Your task to perform on an android device: Open location settings Image 0: 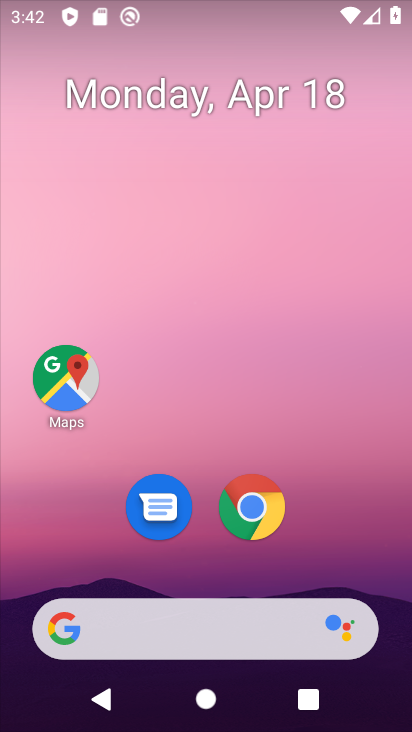
Step 0: drag from (264, 692) to (249, 128)
Your task to perform on an android device: Open location settings Image 1: 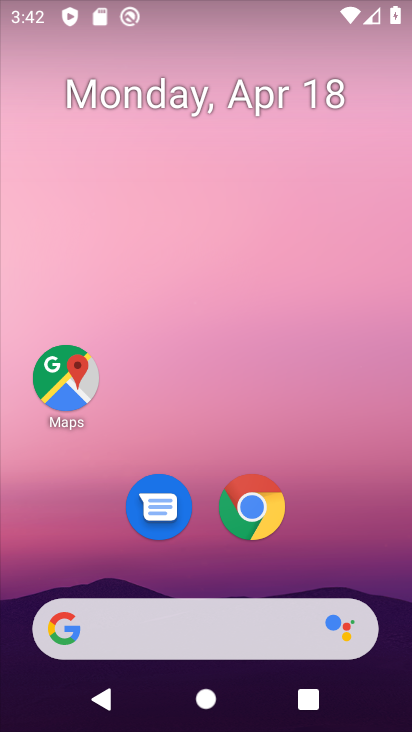
Step 1: drag from (245, 716) to (190, 46)
Your task to perform on an android device: Open location settings Image 2: 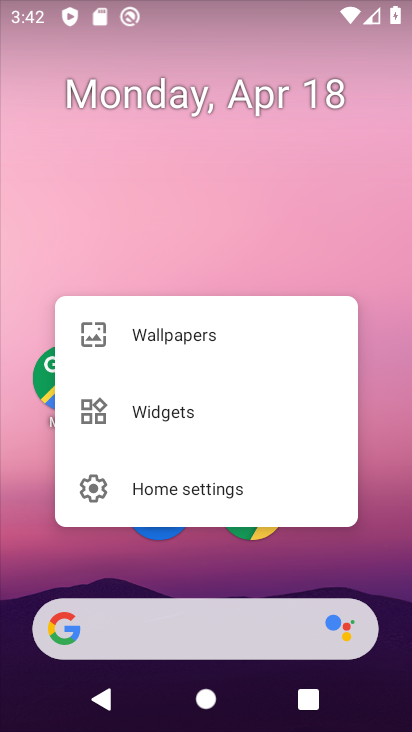
Step 2: click (224, 695)
Your task to perform on an android device: Open location settings Image 3: 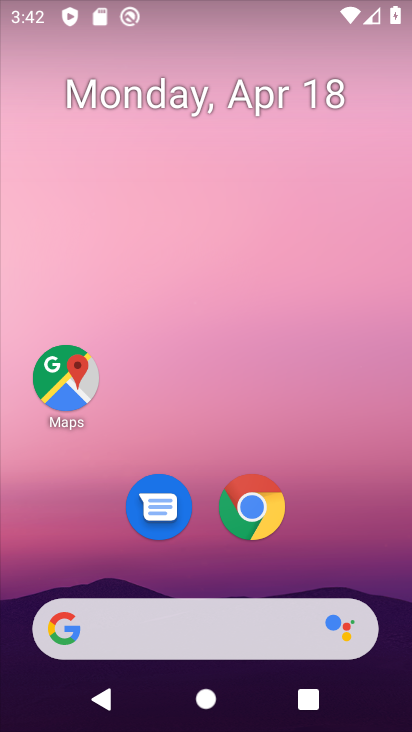
Step 3: drag from (270, 721) to (266, 5)
Your task to perform on an android device: Open location settings Image 4: 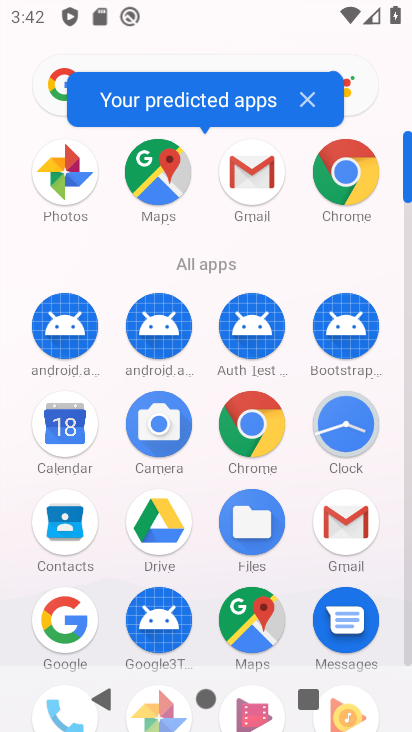
Step 4: click (172, 157)
Your task to perform on an android device: Open location settings Image 5: 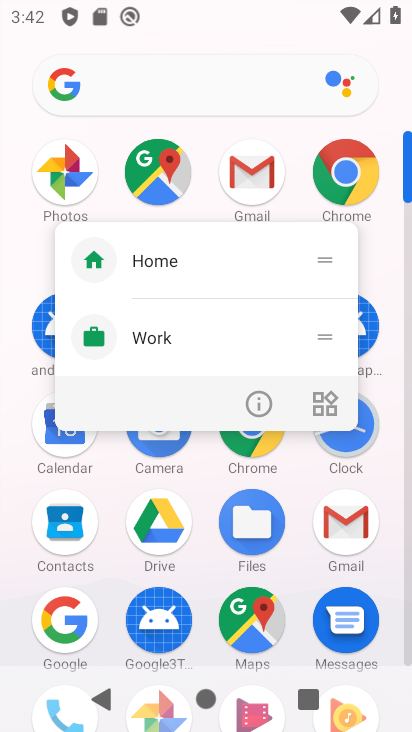
Step 5: click (158, 170)
Your task to perform on an android device: Open location settings Image 6: 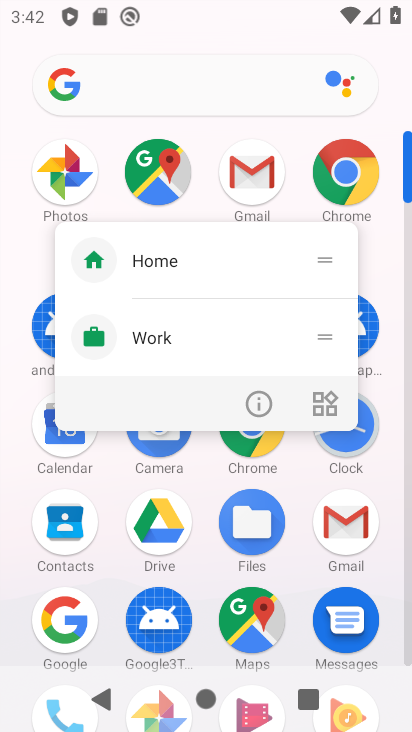
Step 6: click (154, 169)
Your task to perform on an android device: Open location settings Image 7: 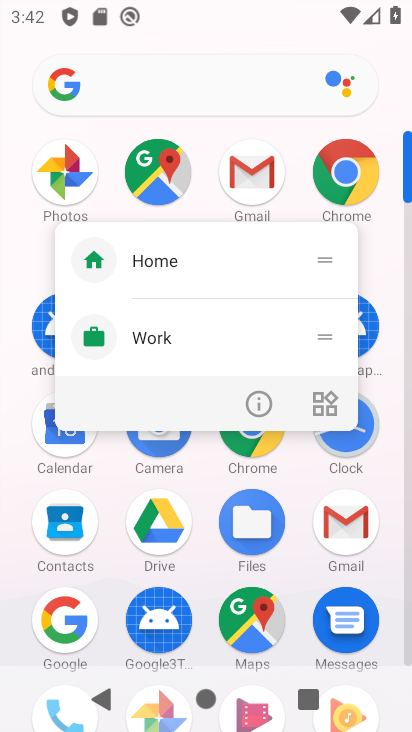
Step 7: click (154, 169)
Your task to perform on an android device: Open location settings Image 8: 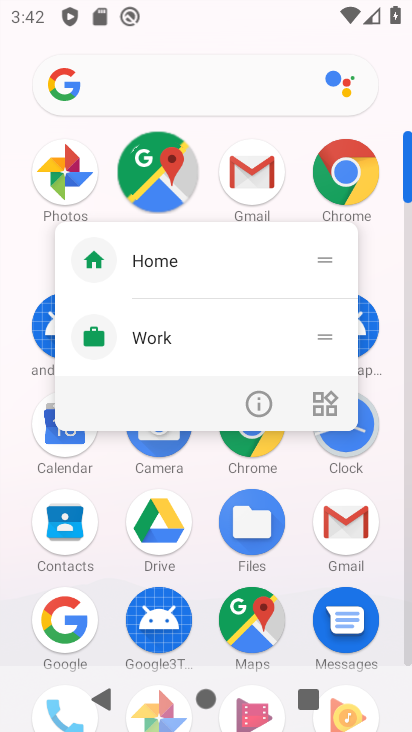
Step 8: click (154, 169)
Your task to perform on an android device: Open location settings Image 9: 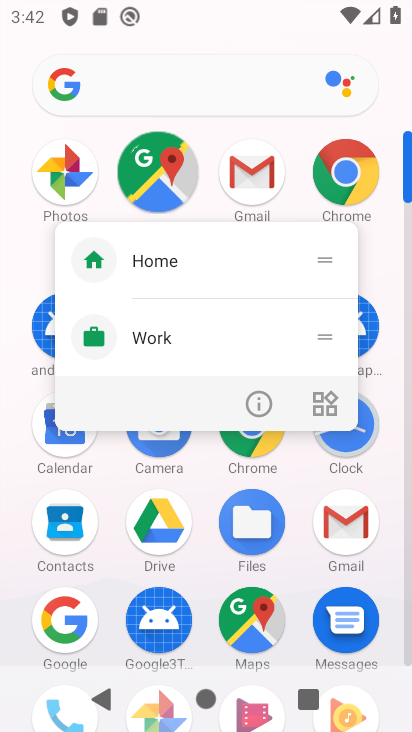
Step 9: click (154, 169)
Your task to perform on an android device: Open location settings Image 10: 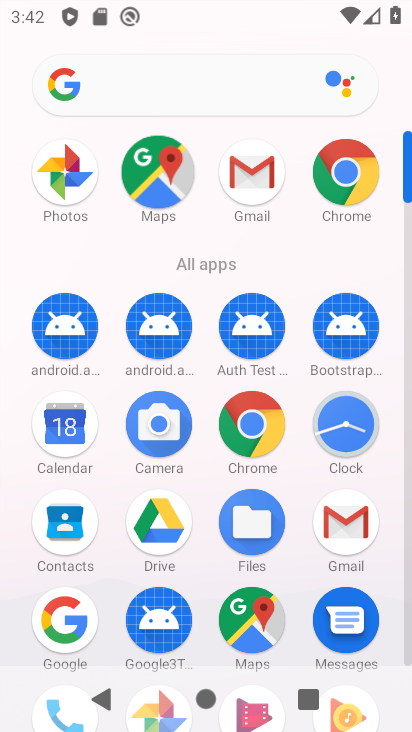
Step 10: click (154, 169)
Your task to perform on an android device: Open location settings Image 11: 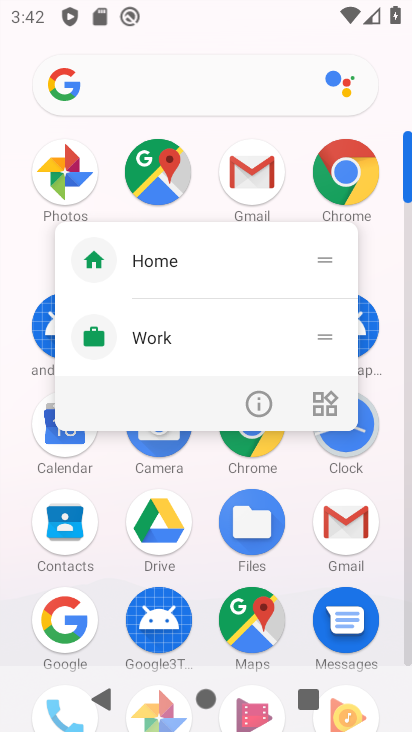
Step 11: click (164, 179)
Your task to perform on an android device: Open location settings Image 12: 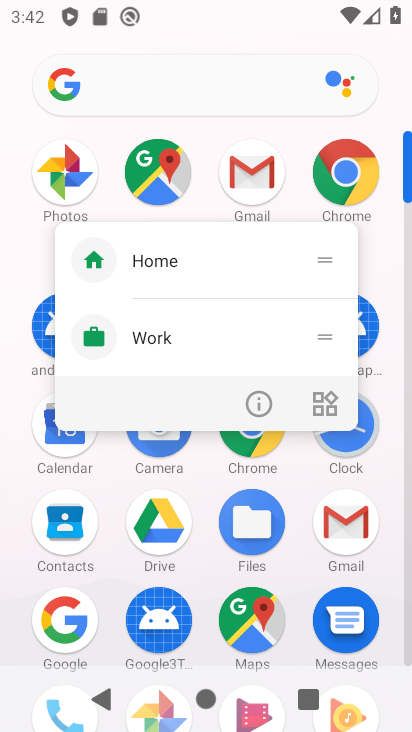
Step 12: drag from (250, 577) to (217, 138)
Your task to perform on an android device: Open location settings Image 13: 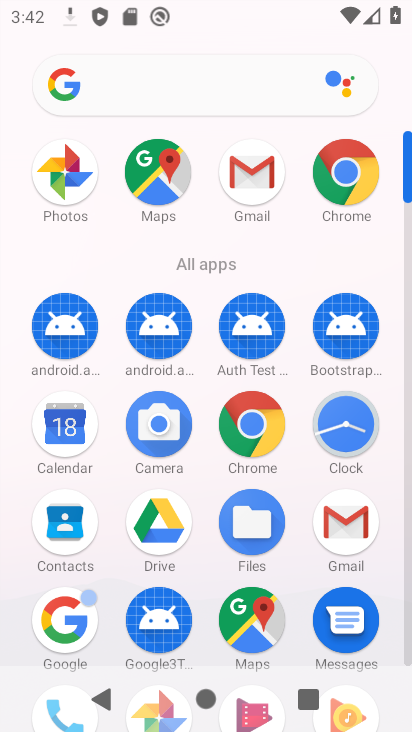
Step 13: drag from (315, 636) to (306, 2)
Your task to perform on an android device: Open location settings Image 14: 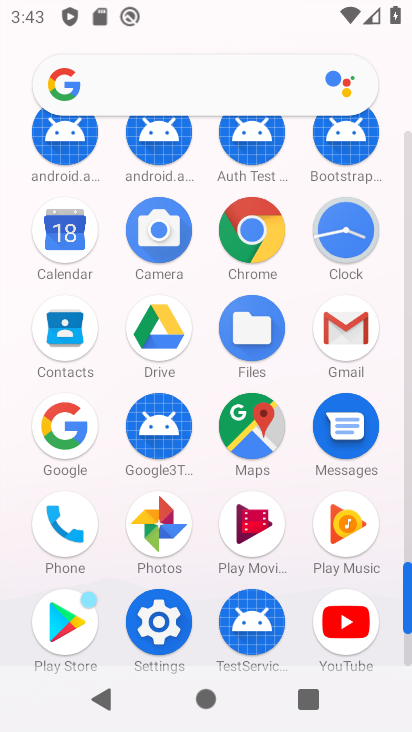
Step 14: click (141, 612)
Your task to perform on an android device: Open location settings Image 15: 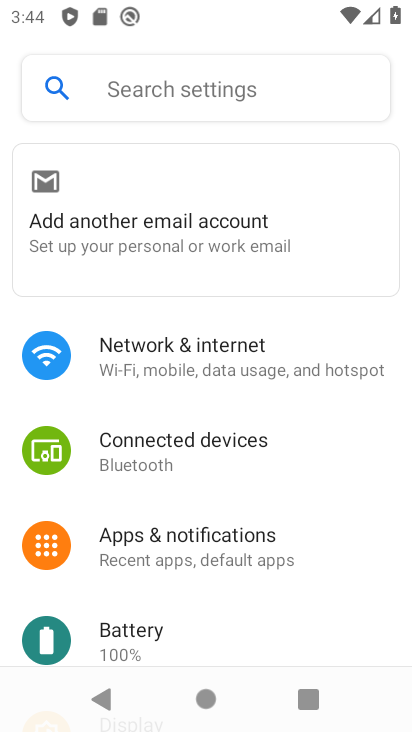
Step 15: drag from (261, 608) to (271, 22)
Your task to perform on an android device: Open location settings Image 16: 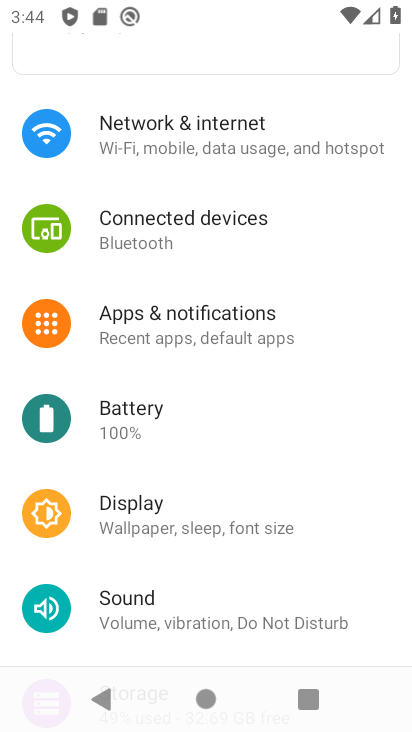
Step 16: drag from (248, 537) to (286, 93)
Your task to perform on an android device: Open location settings Image 17: 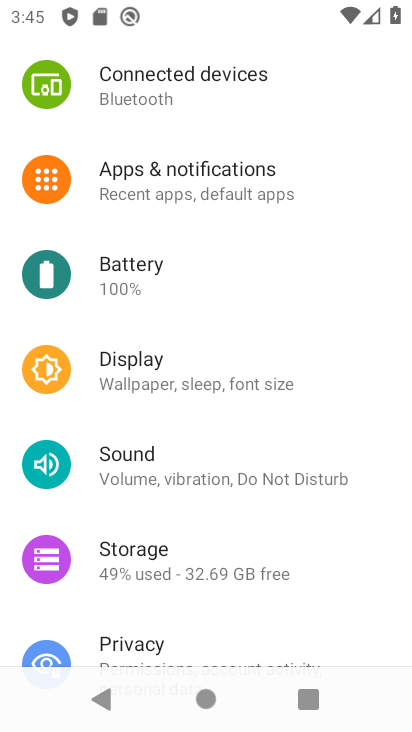
Step 17: drag from (304, 590) to (306, 86)
Your task to perform on an android device: Open location settings Image 18: 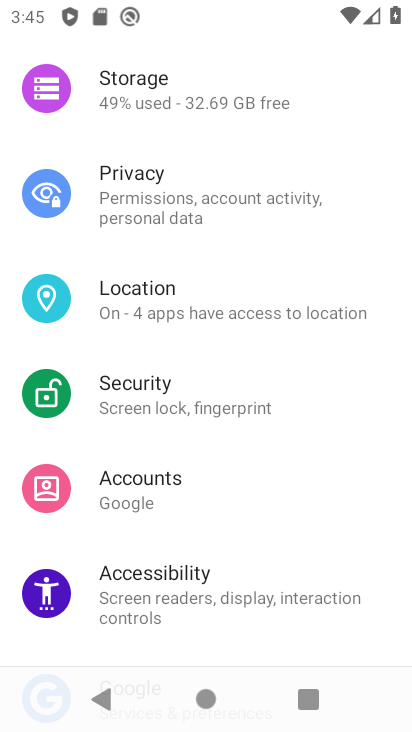
Step 18: click (280, 324)
Your task to perform on an android device: Open location settings Image 19: 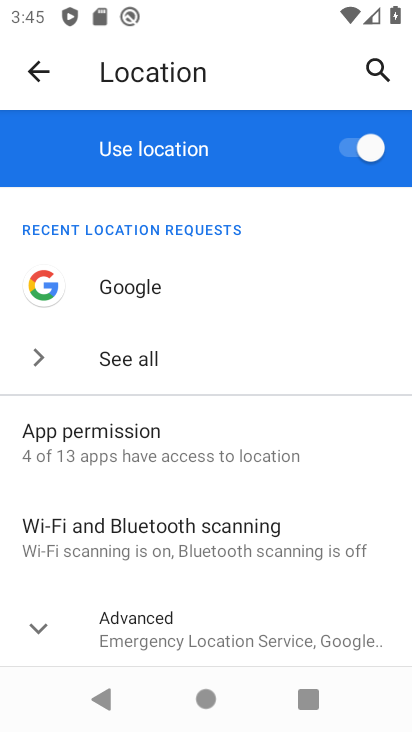
Step 19: task complete